Your task to perform on an android device: turn off location history Image 0: 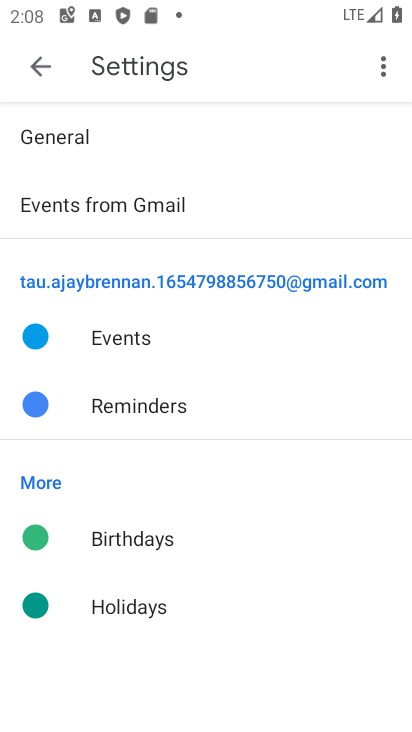
Step 0: press home button
Your task to perform on an android device: turn off location history Image 1: 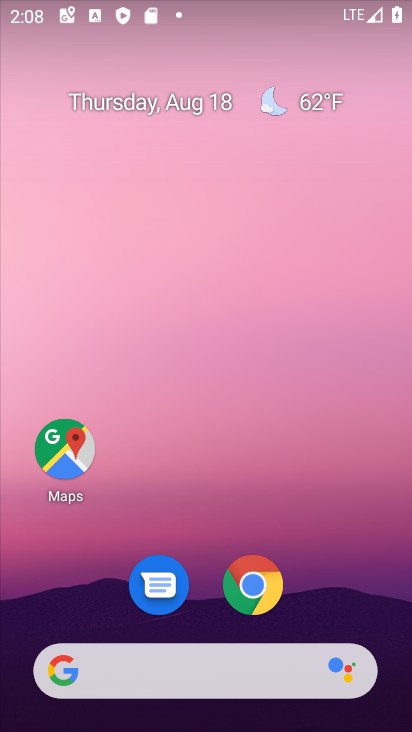
Step 1: drag from (317, 572) to (310, 0)
Your task to perform on an android device: turn off location history Image 2: 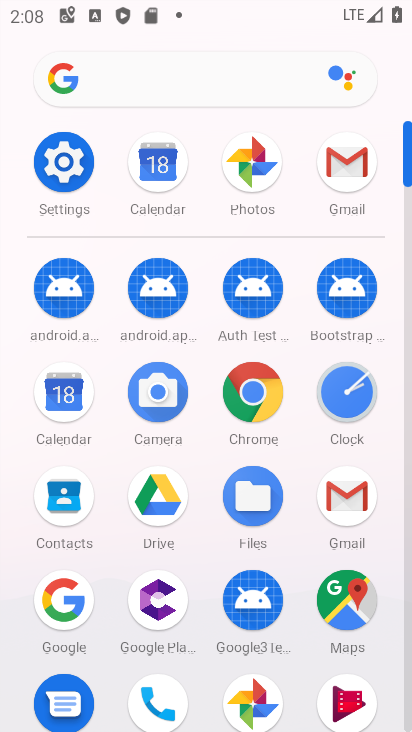
Step 2: click (58, 150)
Your task to perform on an android device: turn off location history Image 3: 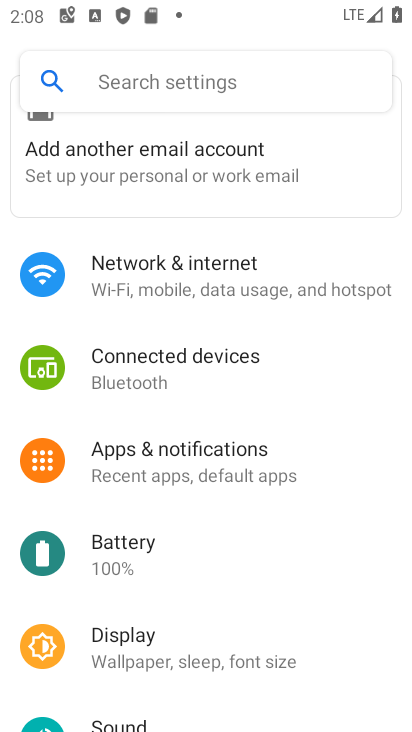
Step 3: drag from (196, 543) to (209, 48)
Your task to perform on an android device: turn off location history Image 4: 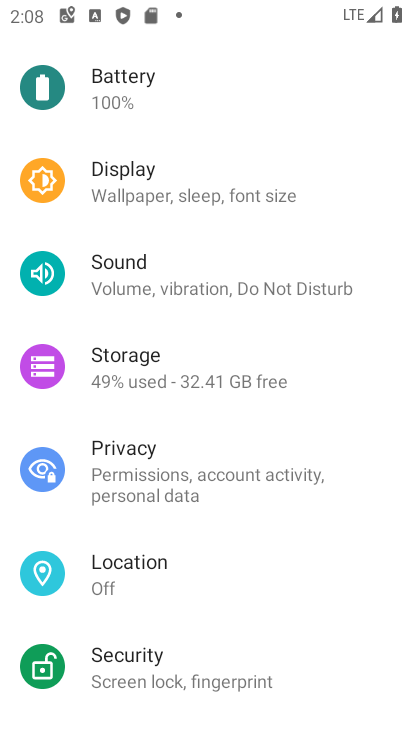
Step 4: click (170, 567)
Your task to perform on an android device: turn off location history Image 5: 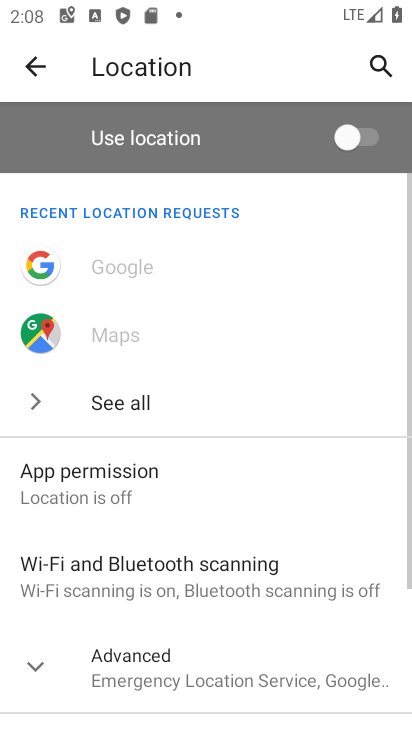
Step 5: drag from (230, 471) to (234, 84)
Your task to perform on an android device: turn off location history Image 6: 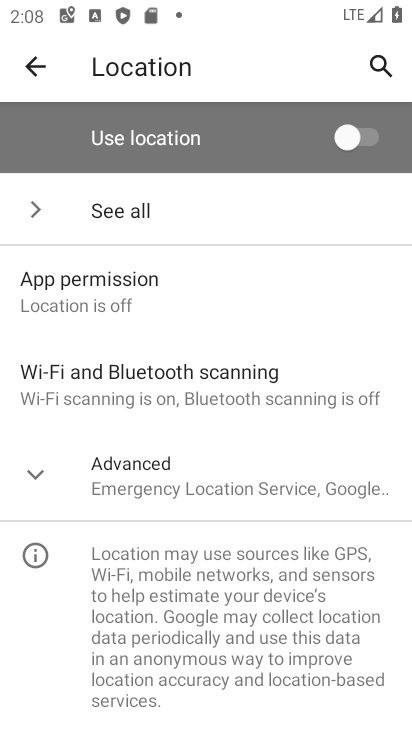
Step 6: click (28, 469)
Your task to perform on an android device: turn off location history Image 7: 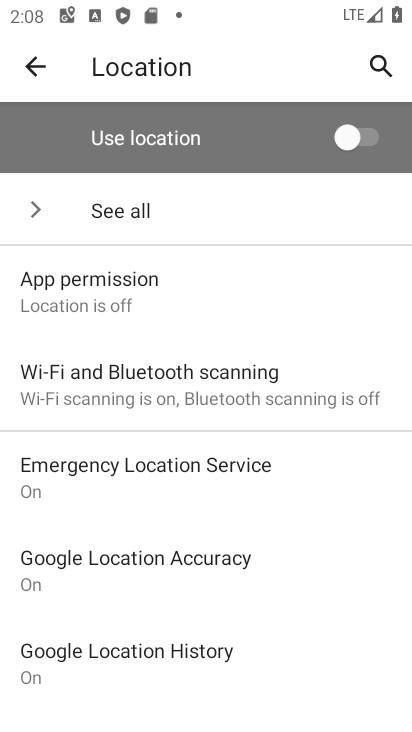
Step 7: click (210, 643)
Your task to perform on an android device: turn off location history Image 8: 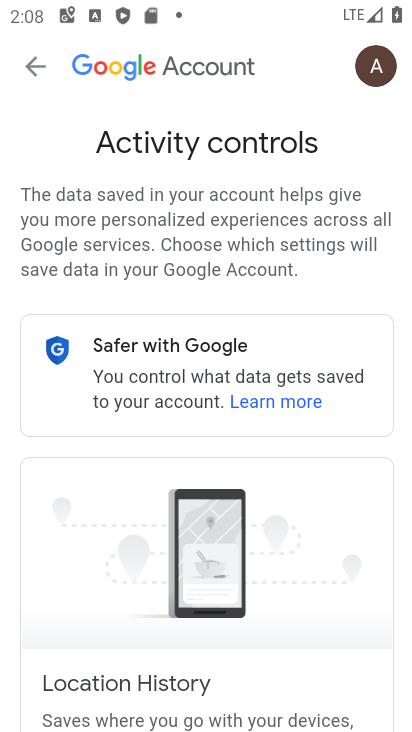
Step 8: task complete